Your task to perform on an android device: change notifications settings Image 0: 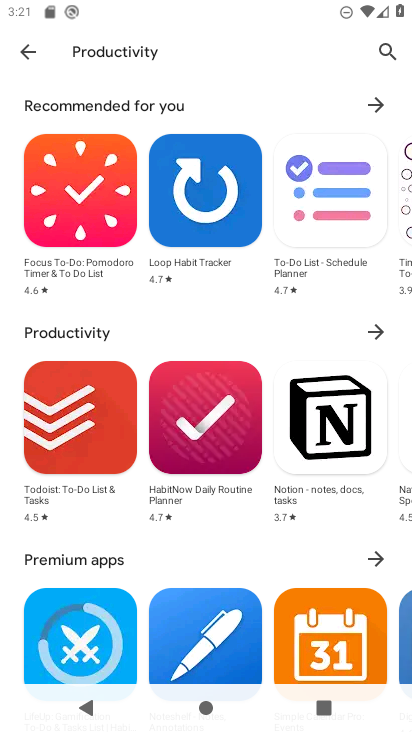
Step 0: press home button
Your task to perform on an android device: change notifications settings Image 1: 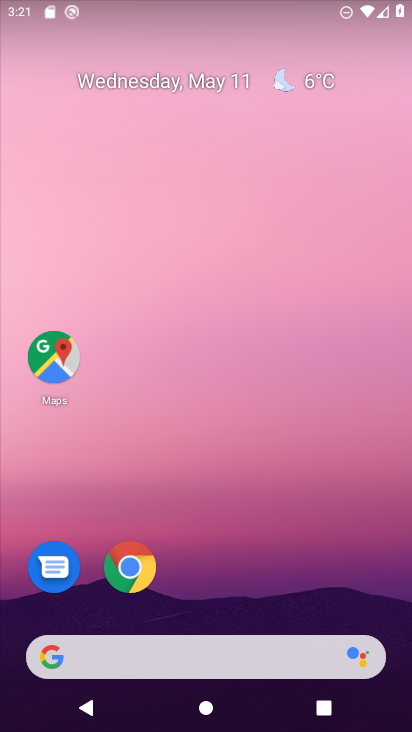
Step 1: drag from (350, 579) to (233, 19)
Your task to perform on an android device: change notifications settings Image 2: 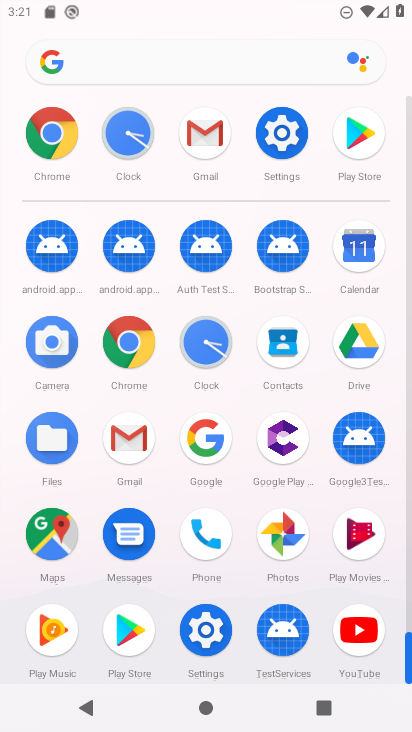
Step 2: click (275, 159)
Your task to perform on an android device: change notifications settings Image 3: 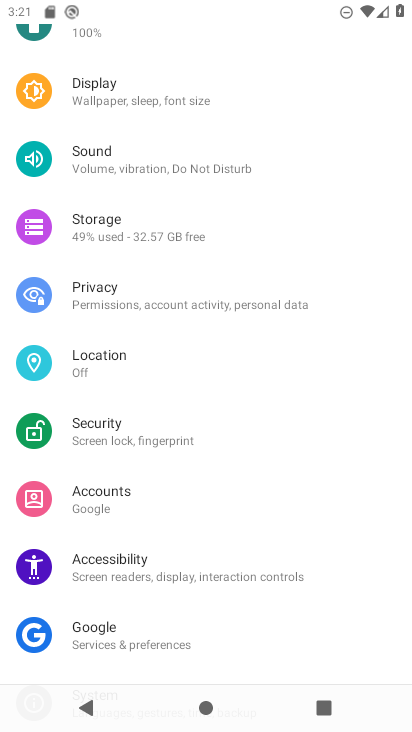
Step 3: drag from (159, 157) to (253, 538)
Your task to perform on an android device: change notifications settings Image 4: 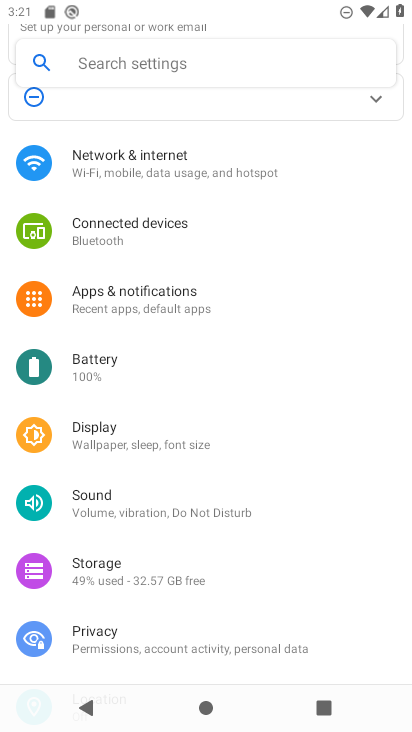
Step 4: click (153, 296)
Your task to perform on an android device: change notifications settings Image 5: 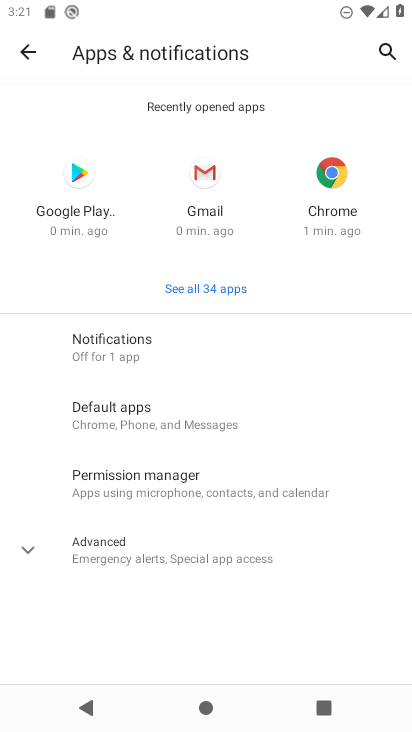
Step 5: click (170, 346)
Your task to perform on an android device: change notifications settings Image 6: 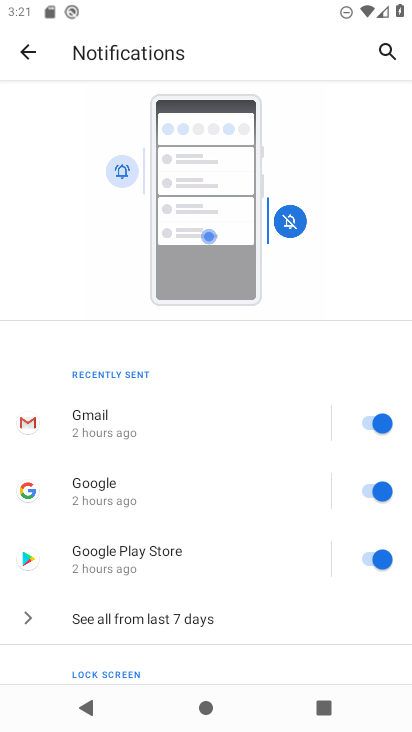
Step 6: click (384, 486)
Your task to perform on an android device: change notifications settings Image 7: 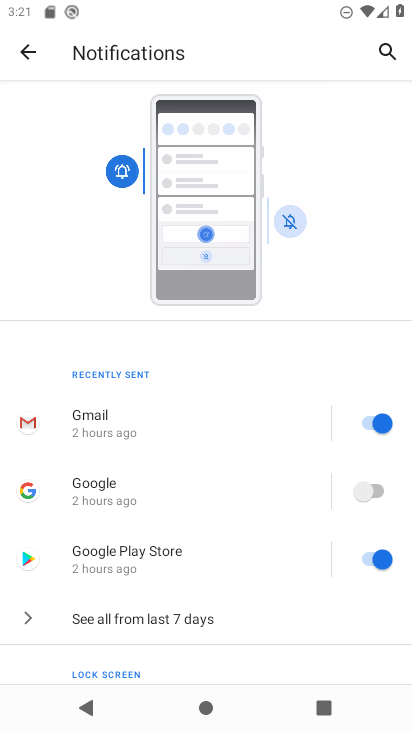
Step 7: task complete